Your task to perform on an android device: Open Amazon Image 0: 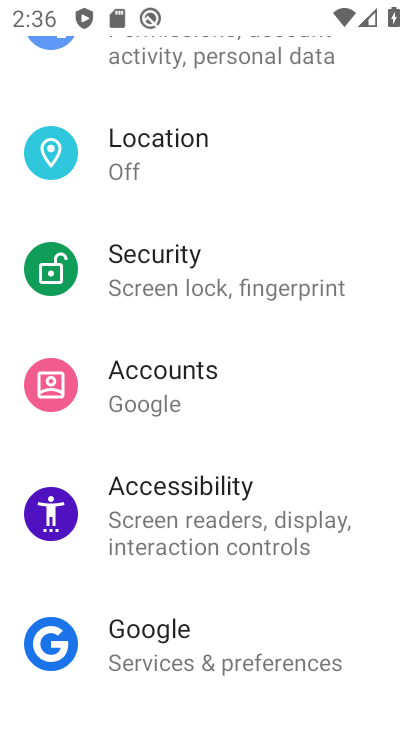
Step 0: press home button
Your task to perform on an android device: Open Amazon Image 1: 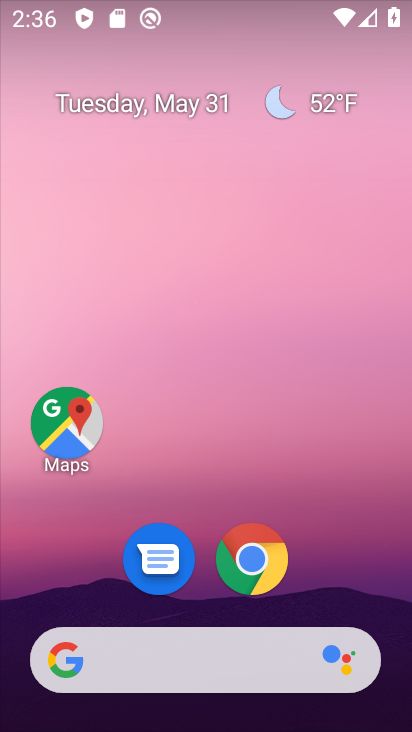
Step 1: click (240, 547)
Your task to perform on an android device: Open Amazon Image 2: 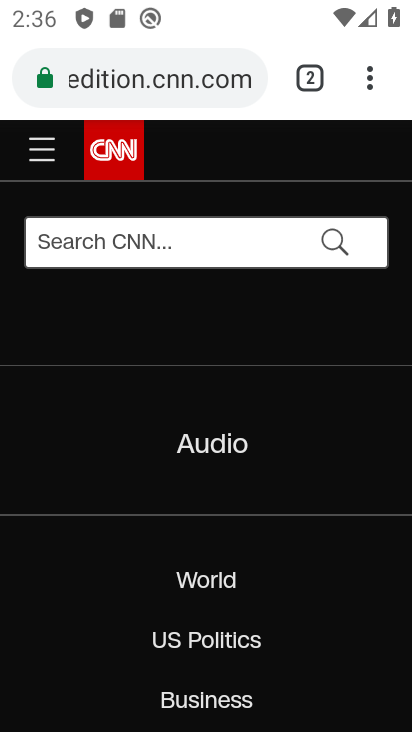
Step 2: click (304, 73)
Your task to perform on an android device: Open Amazon Image 3: 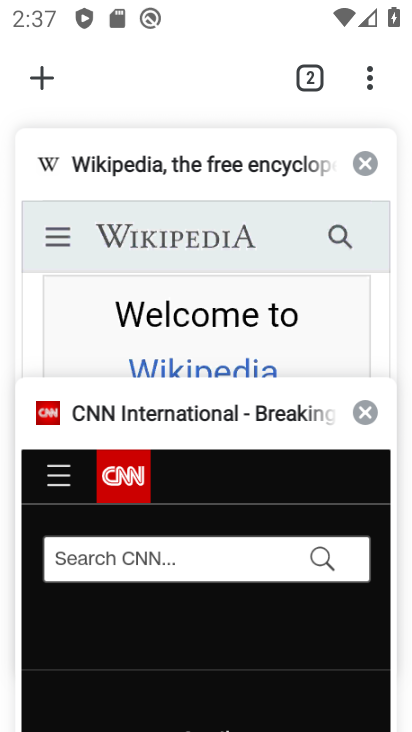
Step 3: click (38, 76)
Your task to perform on an android device: Open Amazon Image 4: 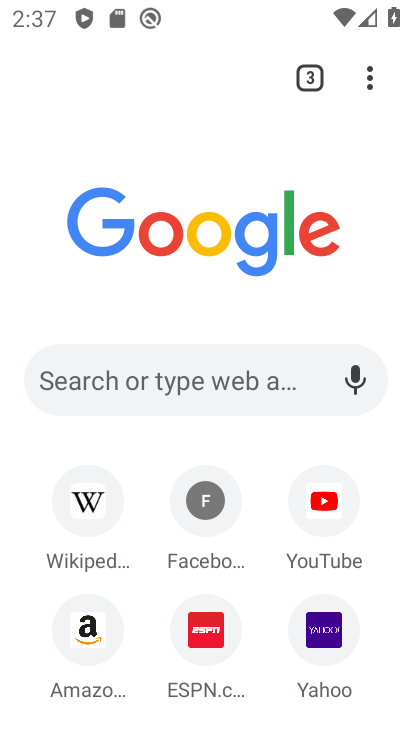
Step 4: click (59, 604)
Your task to perform on an android device: Open Amazon Image 5: 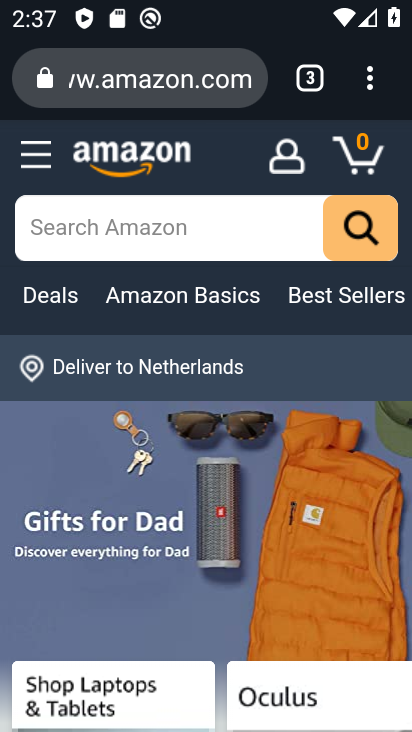
Step 5: task complete